Your task to perform on an android device: Is it going to rain today? Image 0: 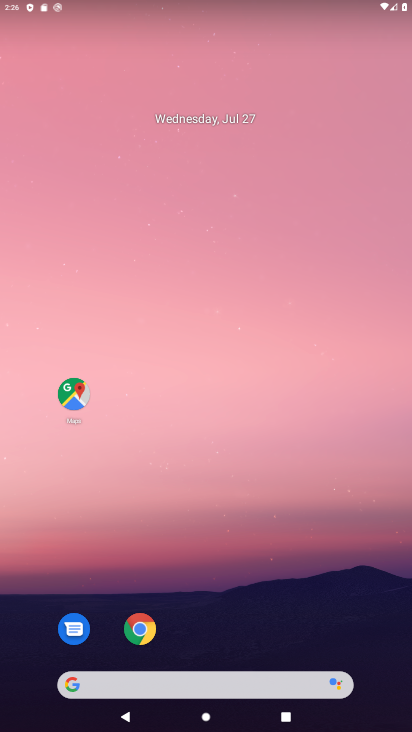
Step 0: click (216, 684)
Your task to perform on an android device: Is it going to rain today? Image 1: 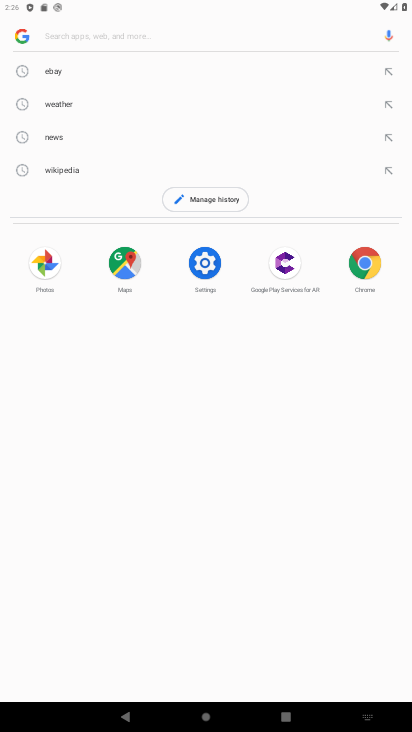
Step 1: click (75, 109)
Your task to perform on an android device: Is it going to rain today? Image 2: 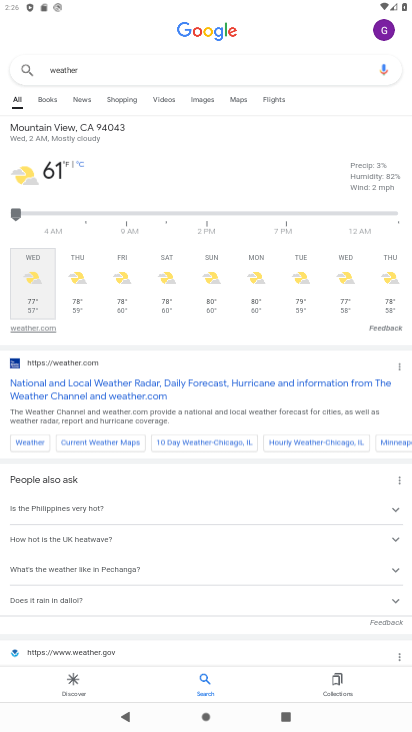
Step 2: task complete